Your task to perform on an android device: Open network settings Image 0: 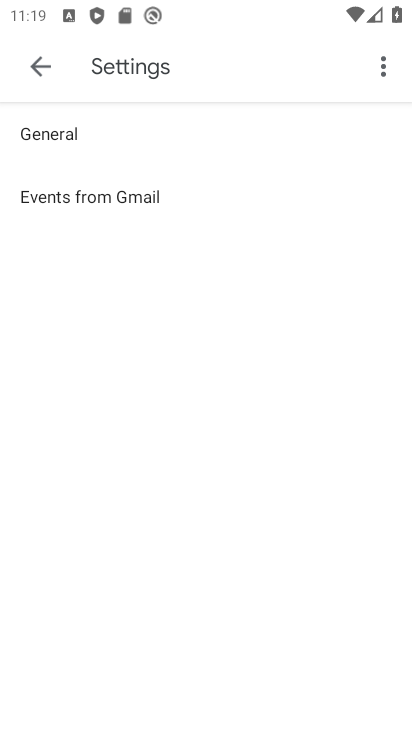
Step 0: press home button
Your task to perform on an android device: Open network settings Image 1: 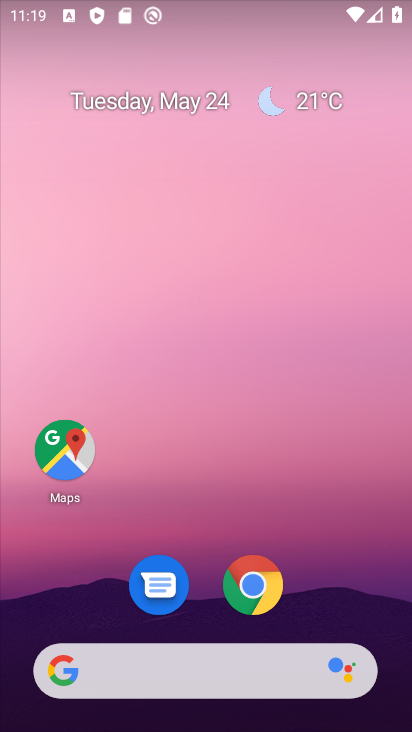
Step 1: drag from (229, 470) to (223, 6)
Your task to perform on an android device: Open network settings Image 2: 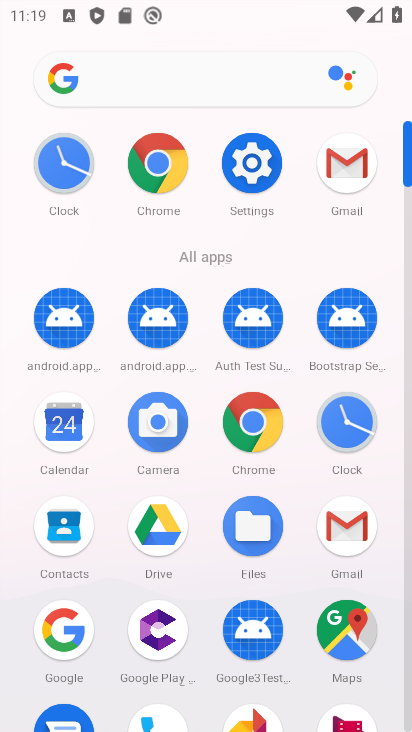
Step 2: click (244, 173)
Your task to perform on an android device: Open network settings Image 3: 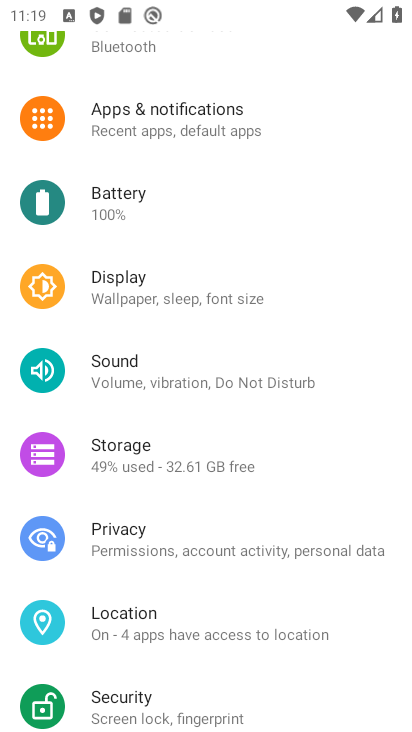
Step 3: drag from (243, 173) to (241, 568)
Your task to perform on an android device: Open network settings Image 4: 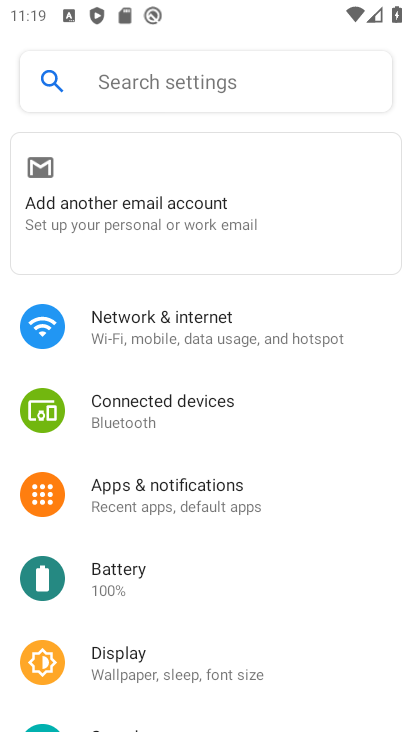
Step 4: click (247, 332)
Your task to perform on an android device: Open network settings Image 5: 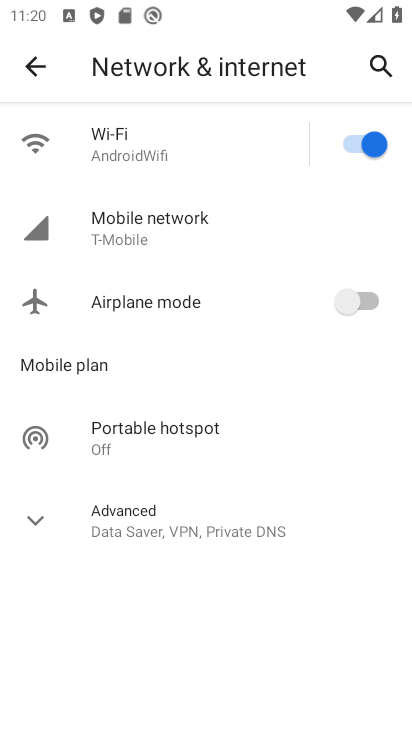
Step 5: task complete